Your task to perform on an android device: Open my contact list Image 0: 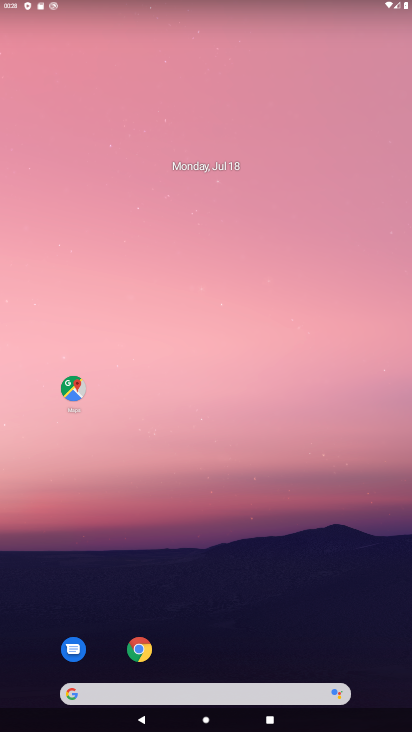
Step 0: click (194, 650)
Your task to perform on an android device: Open my contact list Image 1: 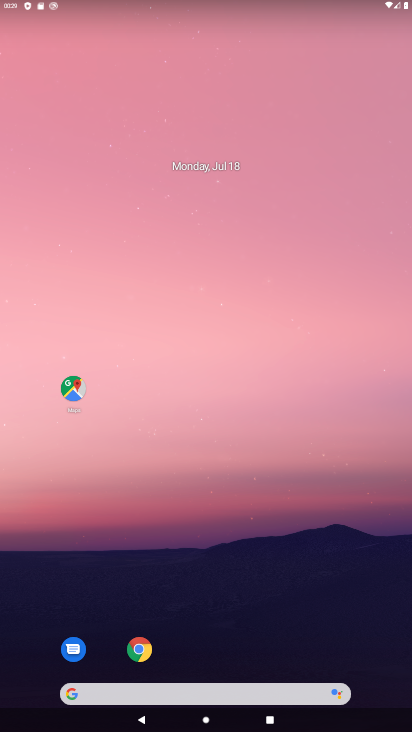
Step 1: drag from (205, 655) to (253, 78)
Your task to perform on an android device: Open my contact list Image 2: 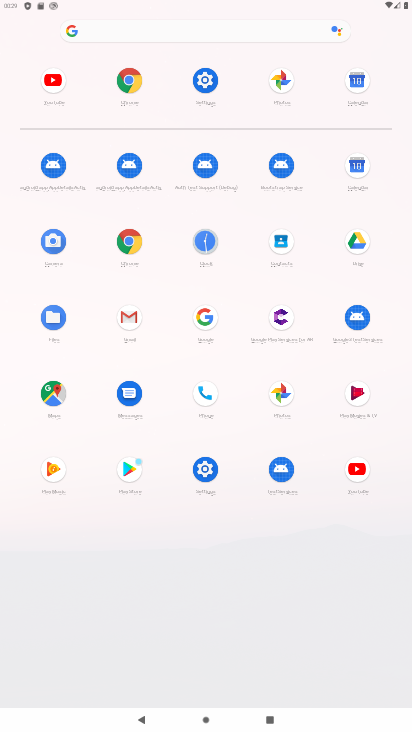
Step 2: click (277, 265)
Your task to perform on an android device: Open my contact list Image 3: 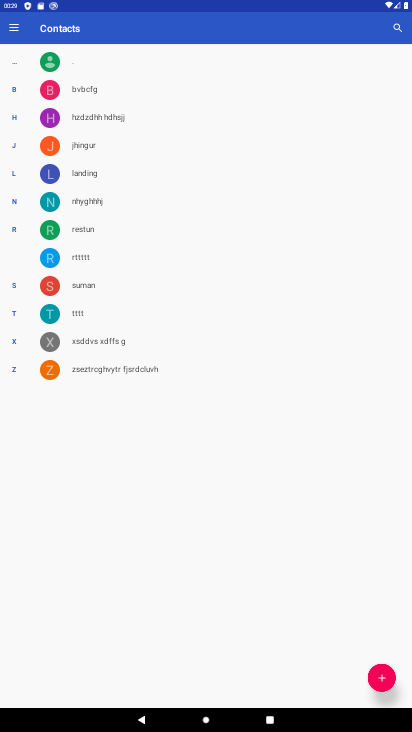
Step 3: task complete